Your task to perform on an android device: Open calendar and show me the third week of next month Image 0: 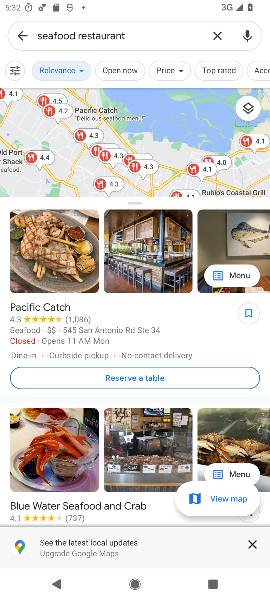
Step 0: press home button
Your task to perform on an android device: Open calendar and show me the third week of next month Image 1: 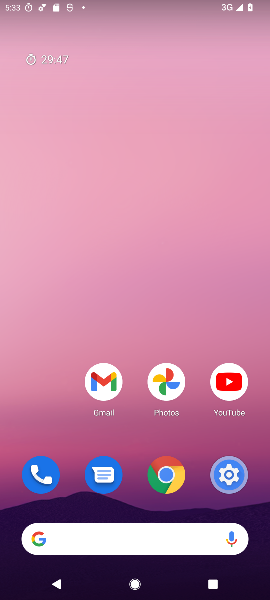
Step 1: drag from (60, 435) to (58, 177)
Your task to perform on an android device: Open calendar and show me the third week of next month Image 2: 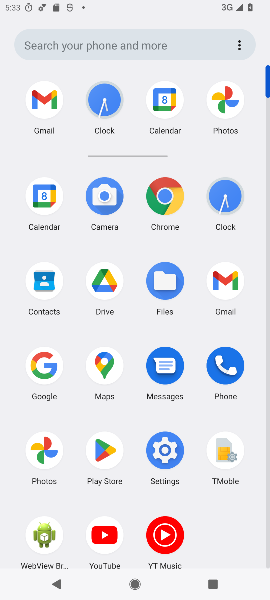
Step 2: click (42, 196)
Your task to perform on an android device: Open calendar and show me the third week of next month Image 3: 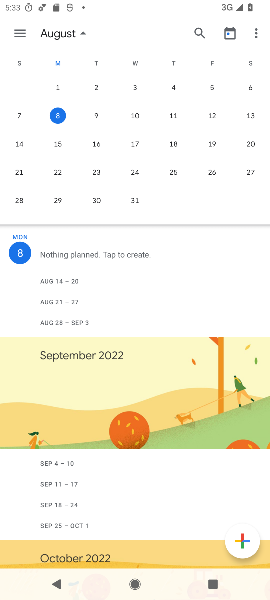
Step 3: drag from (257, 95) to (110, 100)
Your task to perform on an android device: Open calendar and show me the third week of next month Image 4: 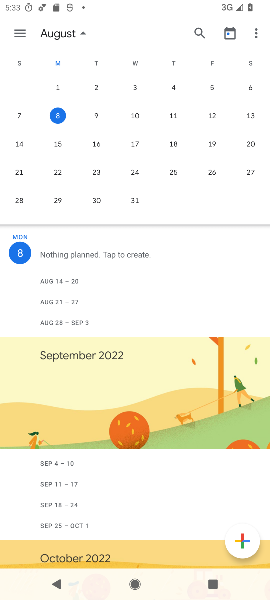
Step 4: drag from (256, 97) to (5, 88)
Your task to perform on an android device: Open calendar and show me the third week of next month Image 5: 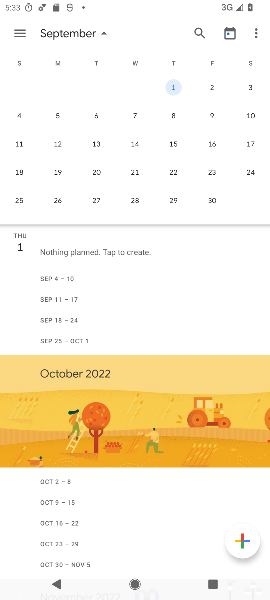
Step 5: click (56, 141)
Your task to perform on an android device: Open calendar and show me the third week of next month Image 6: 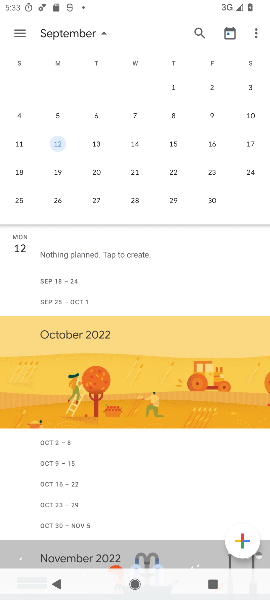
Step 6: task complete